Your task to perform on an android device: Open calendar and show me the second week of next month Image 0: 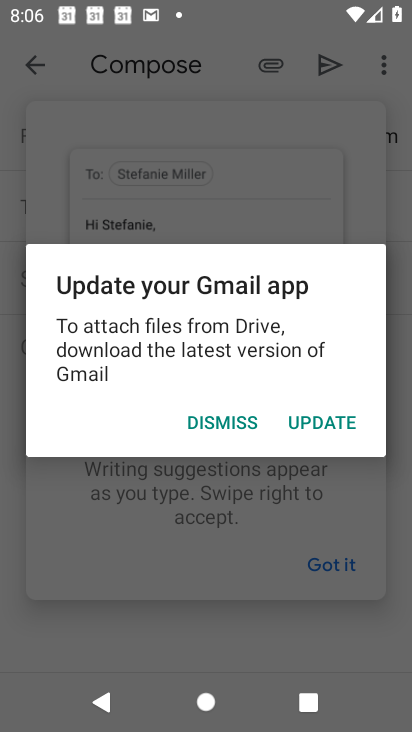
Step 0: press home button
Your task to perform on an android device: Open calendar and show me the second week of next month Image 1: 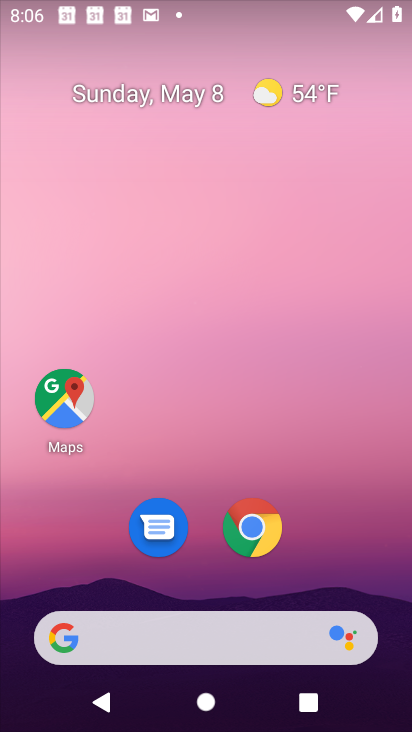
Step 1: drag from (319, 564) to (337, 11)
Your task to perform on an android device: Open calendar and show me the second week of next month Image 2: 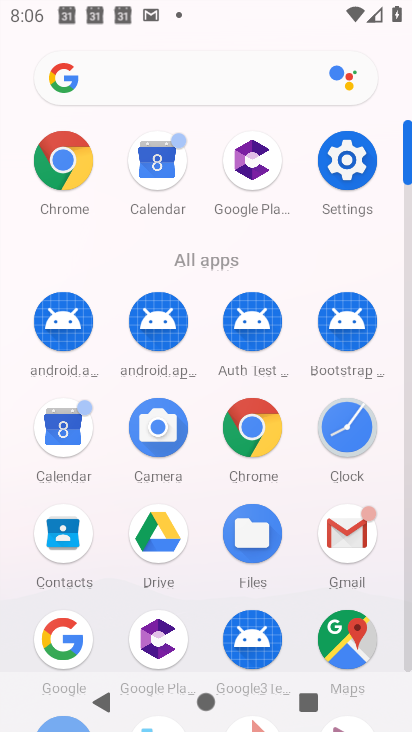
Step 2: click (59, 428)
Your task to perform on an android device: Open calendar and show me the second week of next month Image 3: 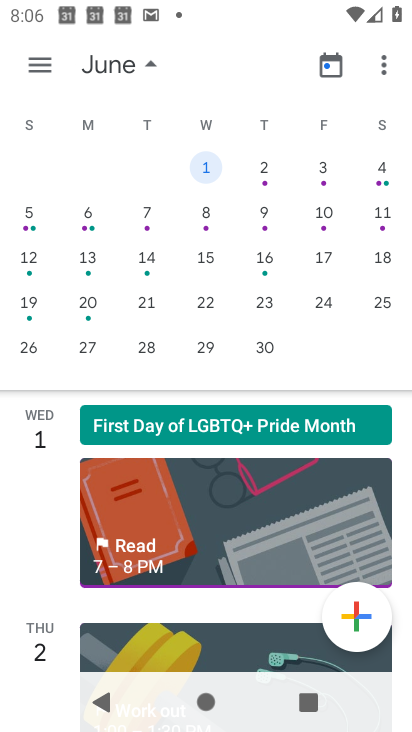
Step 3: click (25, 221)
Your task to perform on an android device: Open calendar and show me the second week of next month Image 4: 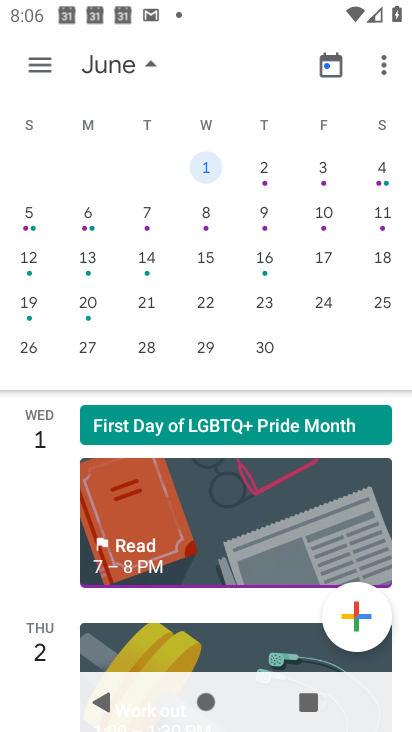
Step 4: click (34, 223)
Your task to perform on an android device: Open calendar and show me the second week of next month Image 5: 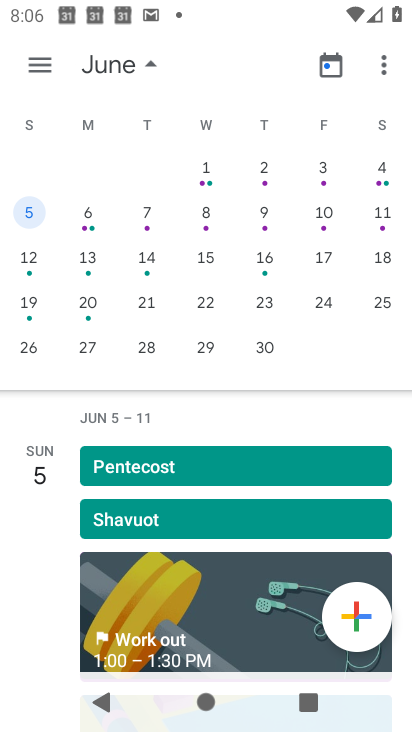
Step 5: task complete